Your task to perform on an android device: add a label to a message in the gmail app Image 0: 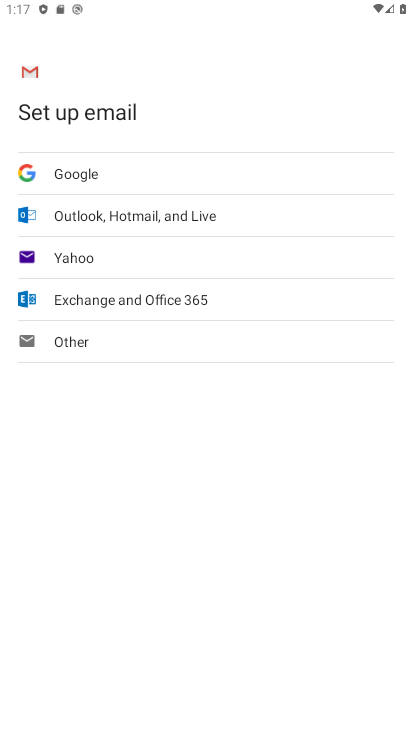
Step 0: press home button
Your task to perform on an android device: add a label to a message in the gmail app Image 1: 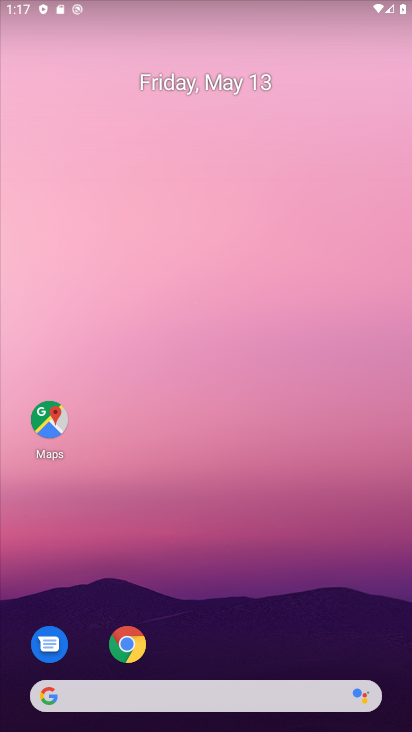
Step 1: drag from (254, 605) to (145, 151)
Your task to perform on an android device: add a label to a message in the gmail app Image 2: 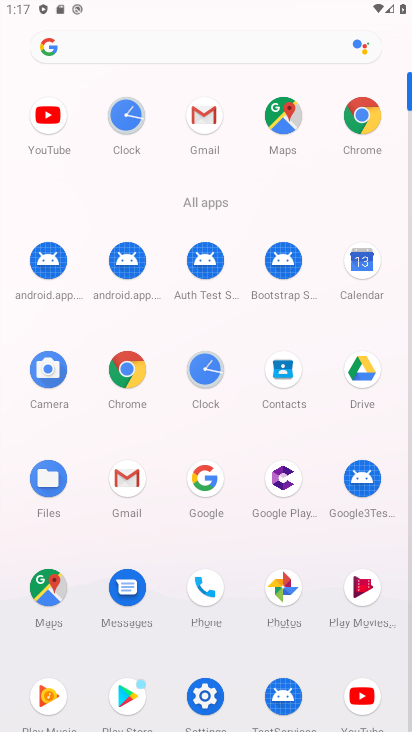
Step 2: click (190, 117)
Your task to perform on an android device: add a label to a message in the gmail app Image 3: 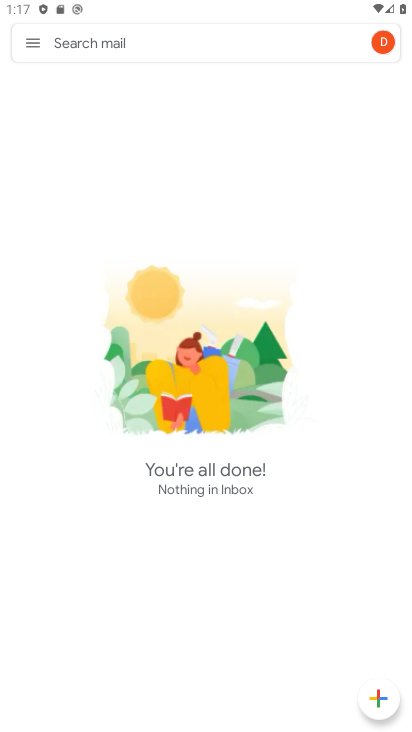
Step 3: click (33, 38)
Your task to perform on an android device: add a label to a message in the gmail app Image 4: 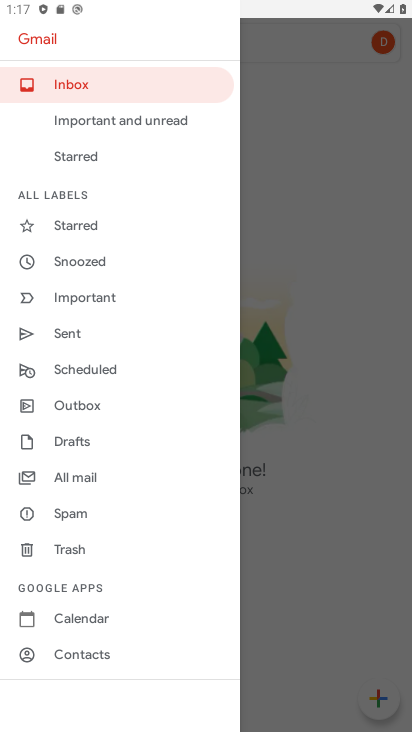
Step 4: click (73, 473)
Your task to perform on an android device: add a label to a message in the gmail app Image 5: 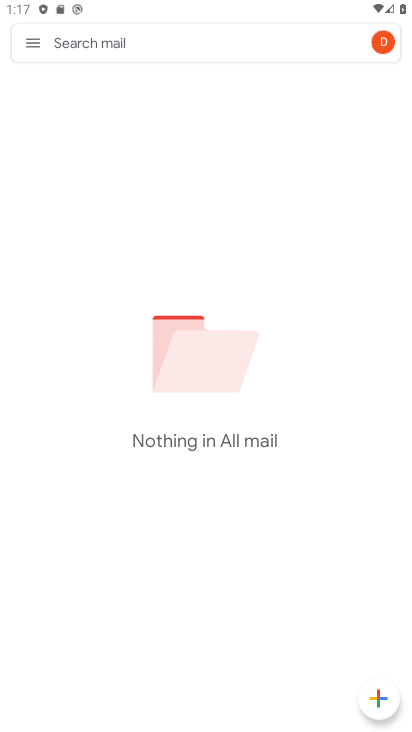
Step 5: task complete